Your task to perform on an android device: Open CNN.com Image 0: 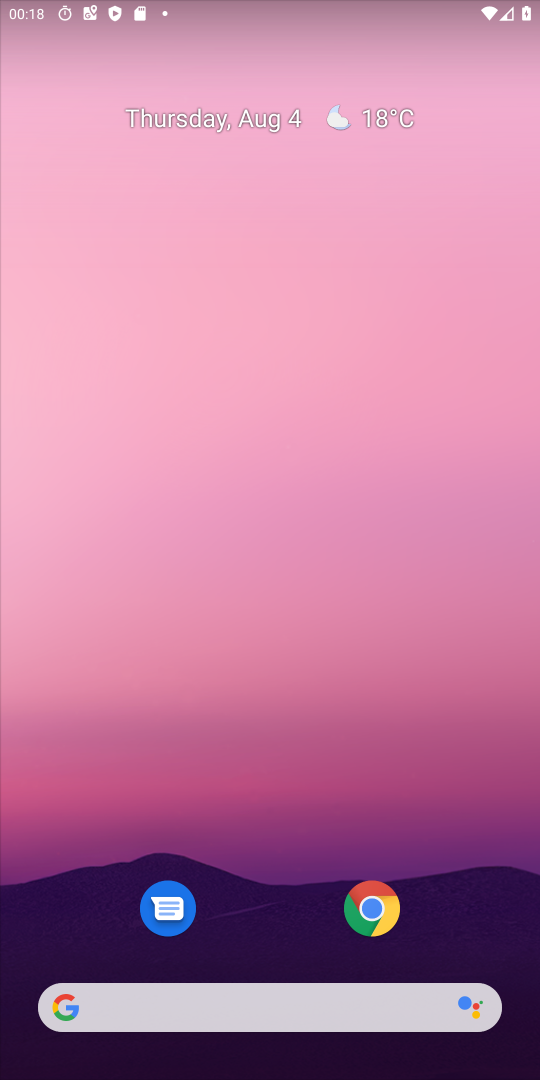
Step 0: press home button
Your task to perform on an android device: Open CNN.com Image 1: 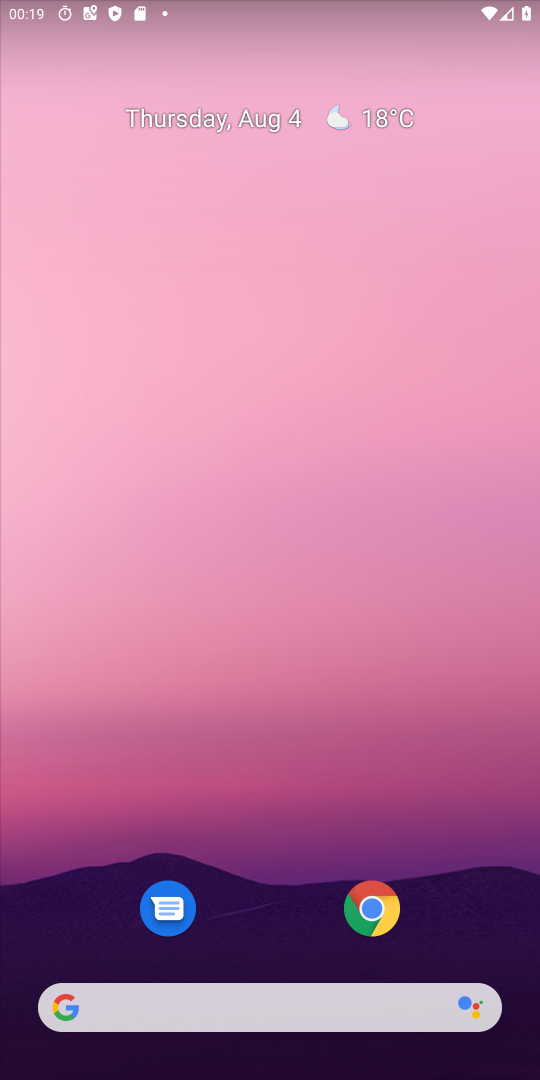
Step 1: drag from (380, 1030) to (341, 270)
Your task to perform on an android device: Open CNN.com Image 2: 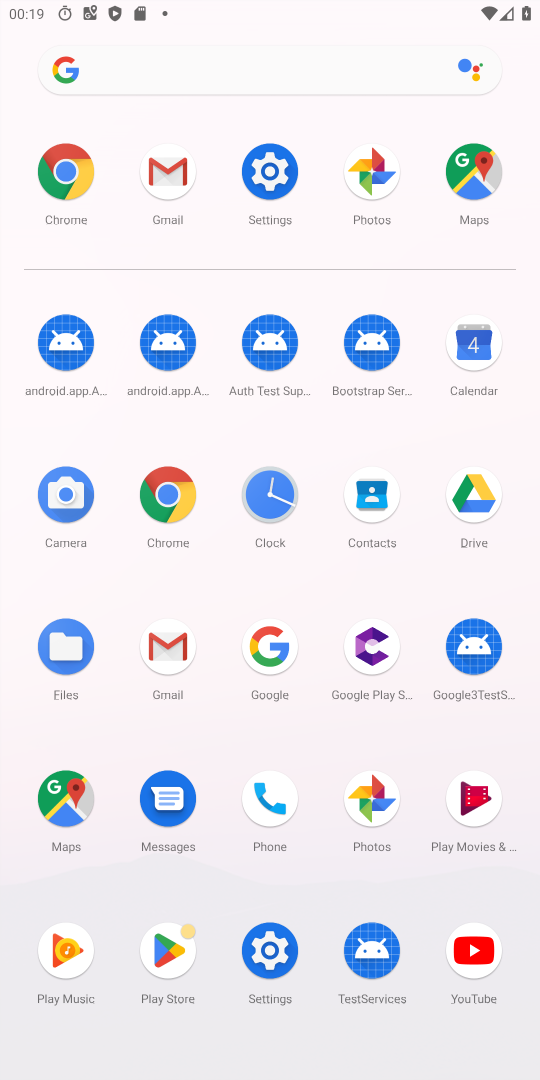
Step 2: click (81, 179)
Your task to perform on an android device: Open CNN.com Image 3: 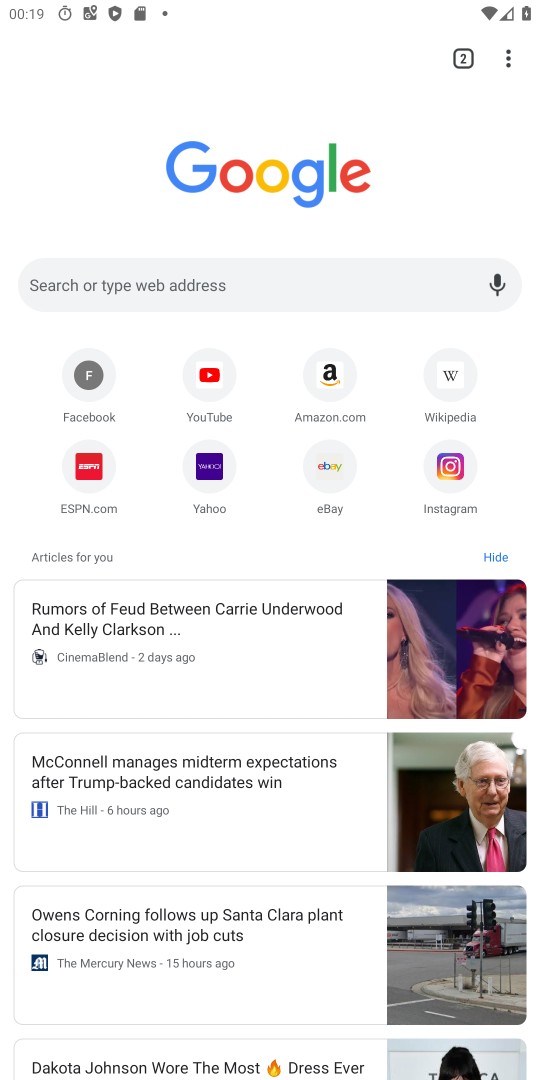
Step 3: click (150, 295)
Your task to perform on an android device: Open CNN.com Image 4: 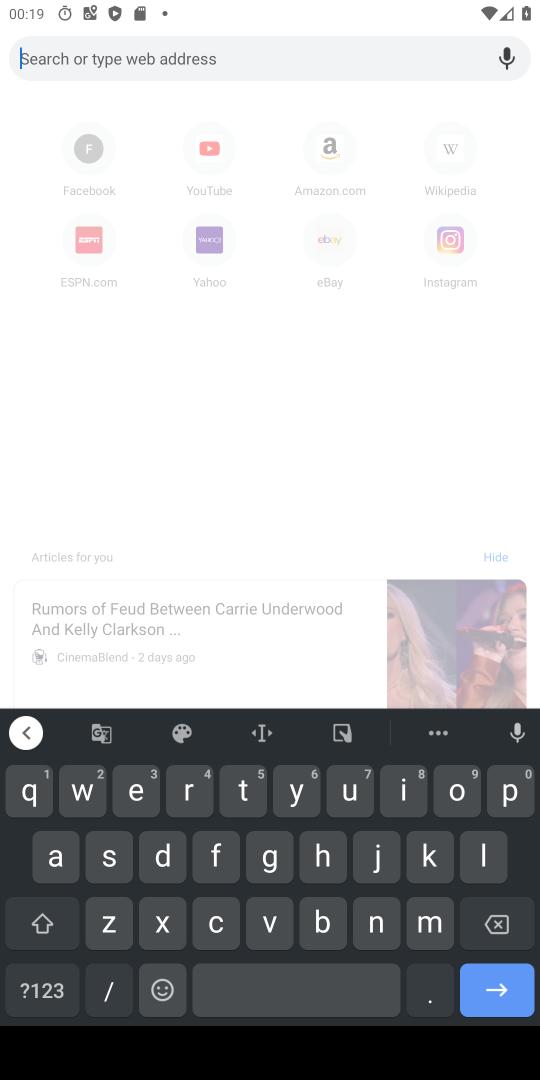
Step 4: click (207, 924)
Your task to perform on an android device: Open CNN.com Image 5: 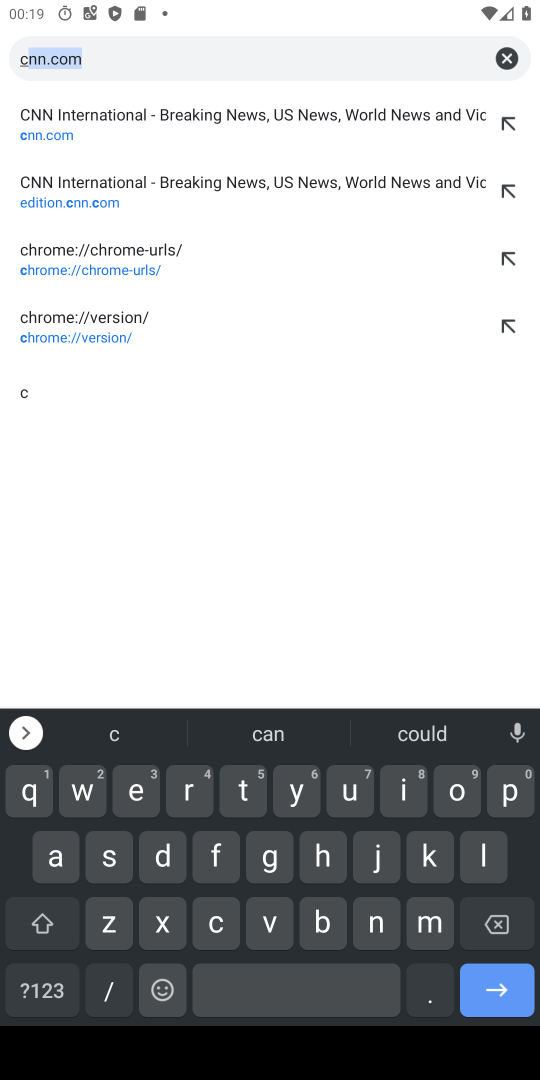
Step 5: click (115, 45)
Your task to perform on an android device: Open CNN.com Image 6: 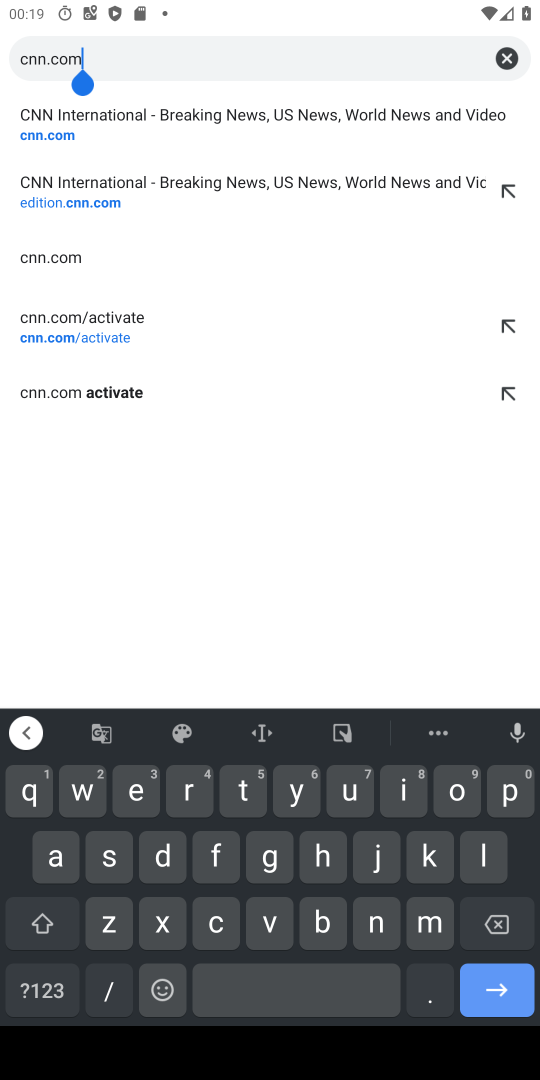
Step 6: click (521, 1007)
Your task to perform on an android device: Open CNN.com Image 7: 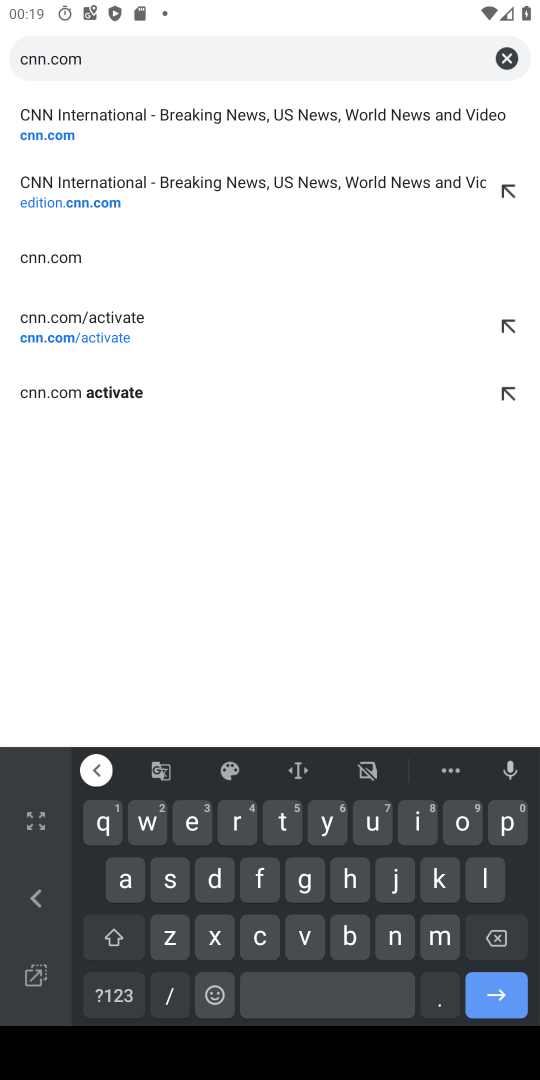
Step 7: click (506, 1007)
Your task to perform on an android device: Open CNN.com Image 8: 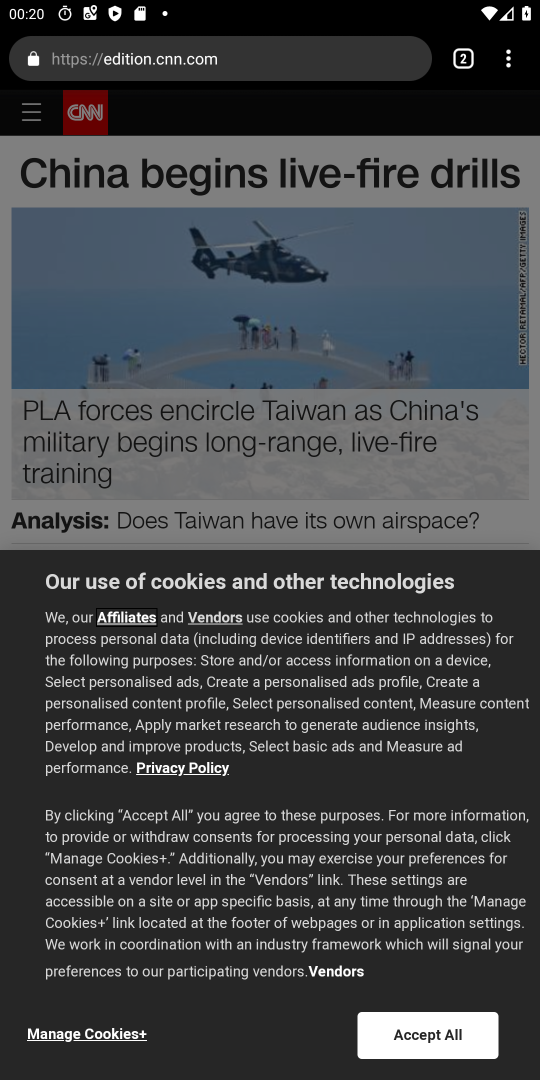
Step 8: click (427, 1035)
Your task to perform on an android device: Open CNN.com Image 9: 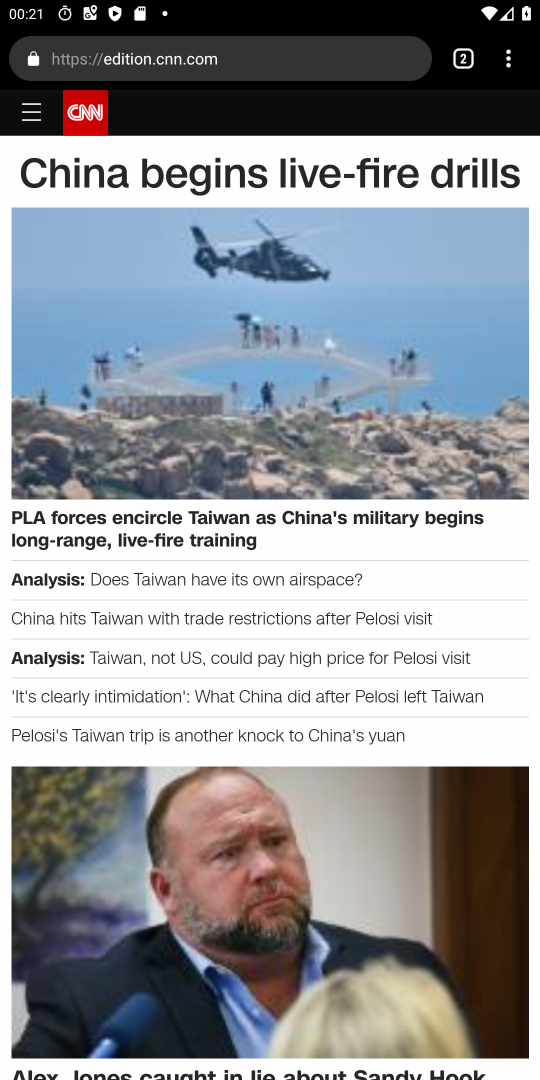
Step 9: task complete